Your task to perform on an android device: Open network settings Image 0: 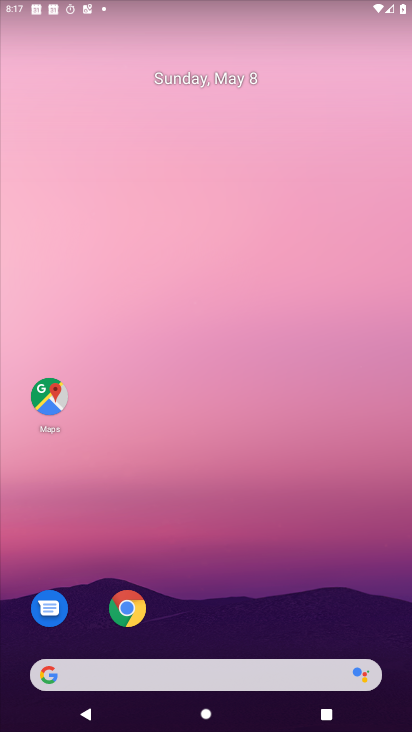
Step 0: drag from (260, 606) to (291, 207)
Your task to perform on an android device: Open network settings Image 1: 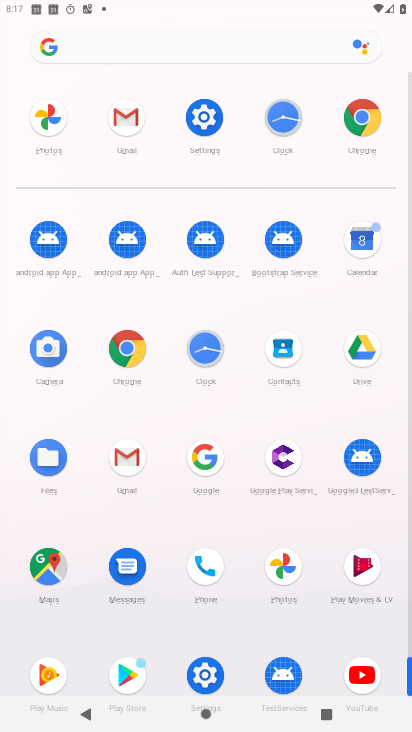
Step 1: click (209, 122)
Your task to perform on an android device: Open network settings Image 2: 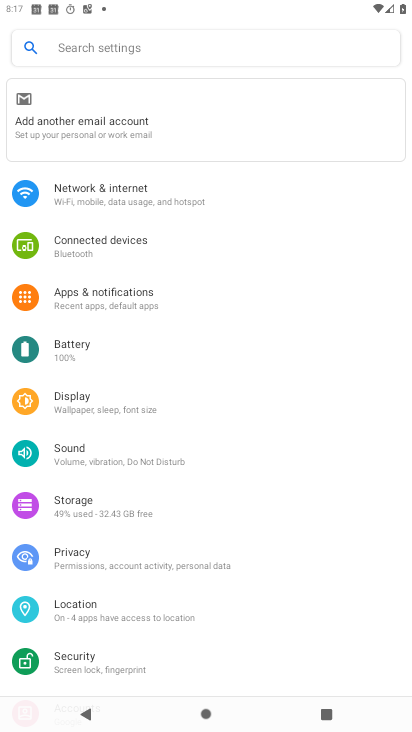
Step 2: click (142, 211)
Your task to perform on an android device: Open network settings Image 3: 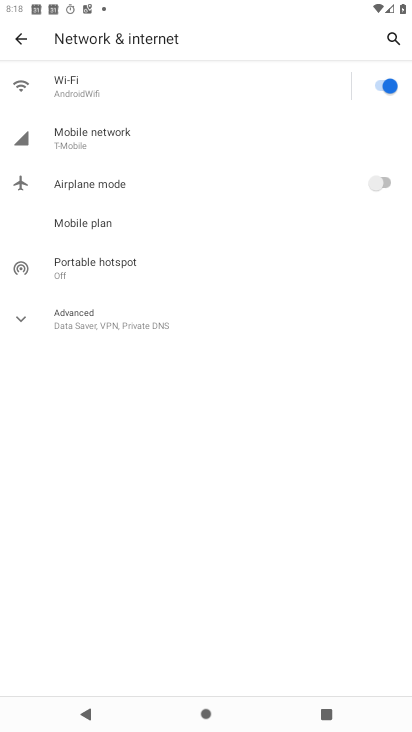
Step 3: task complete